Your task to perform on an android device: delete location history Image 0: 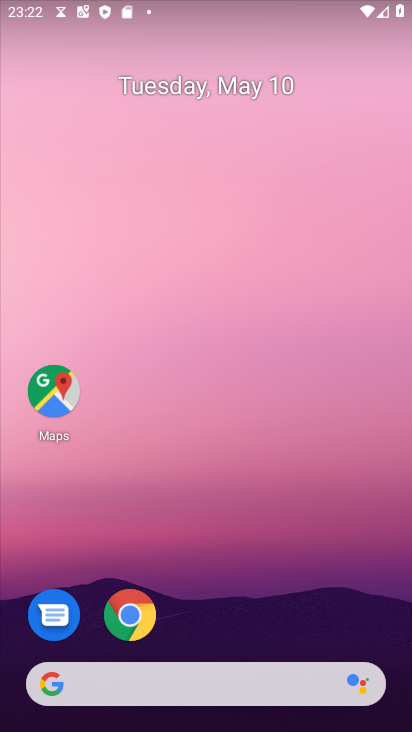
Step 0: click (55, 395)
Your task to perform on an android device: delete location history Image 1: 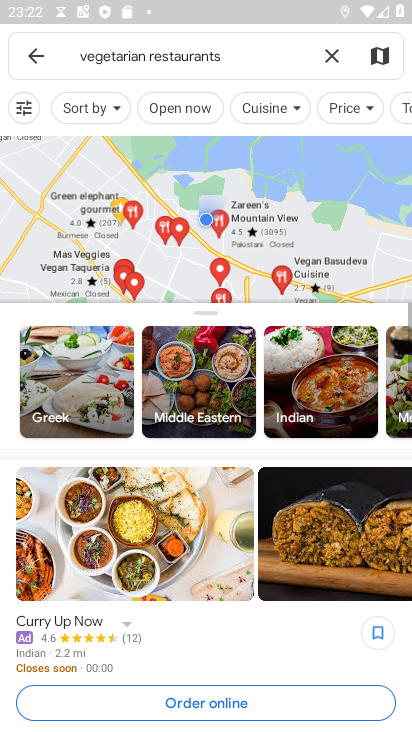
Step 1: click (326, 53)
Your task to perform on an android device: delete location history Image 2: 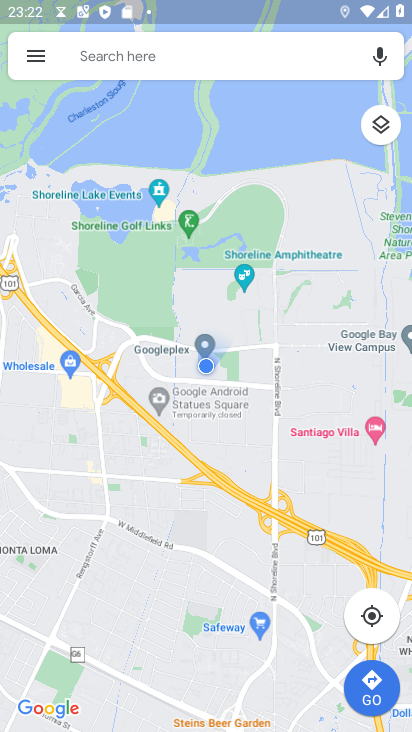
Step 2: click (37, 58)
Your task to perform on an android device: delete location history Image 3: 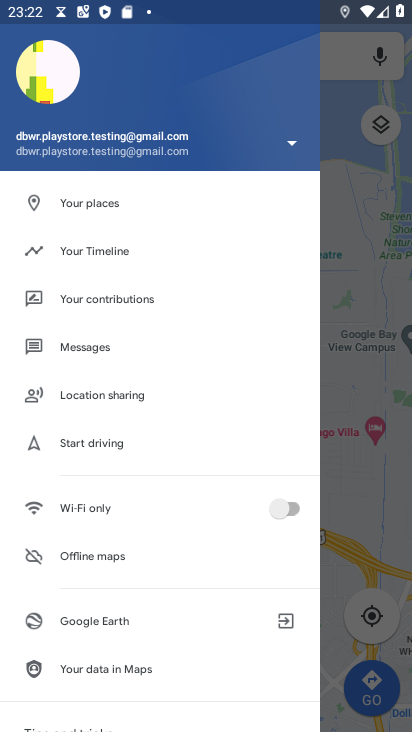
Step 3: drag from (122, 550) to (101, 450)
Your task to perform on an android device: delete location history Image 4: 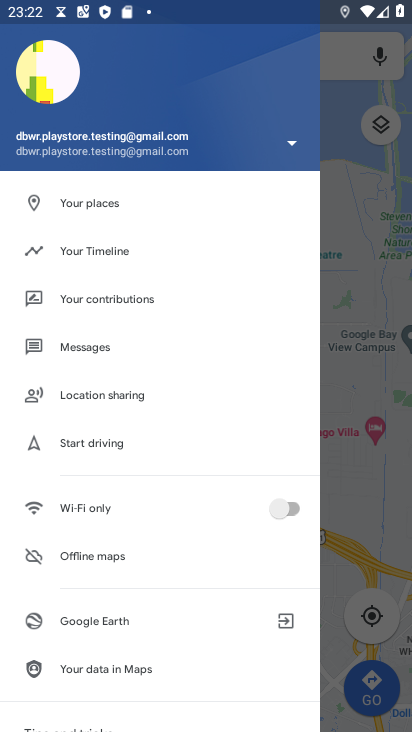
Step 4: drag from (86, 639) to (126, 487)
Your task to perform on an android device: delete location history Image 5: 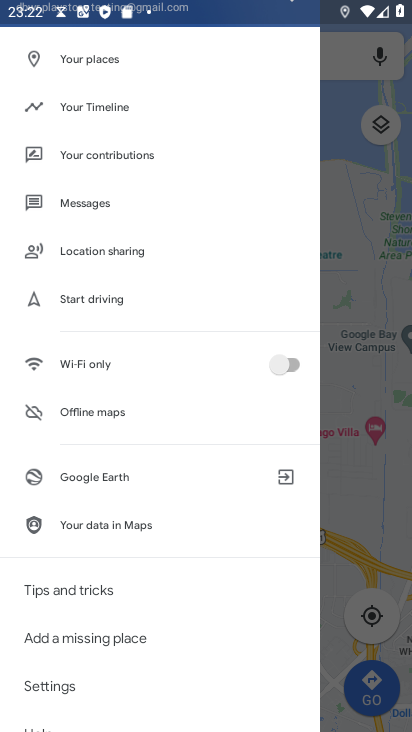
Step 5: drag from (72, 650) to (117, 512)
Your task to perform on an android device: delete location history Image 6: 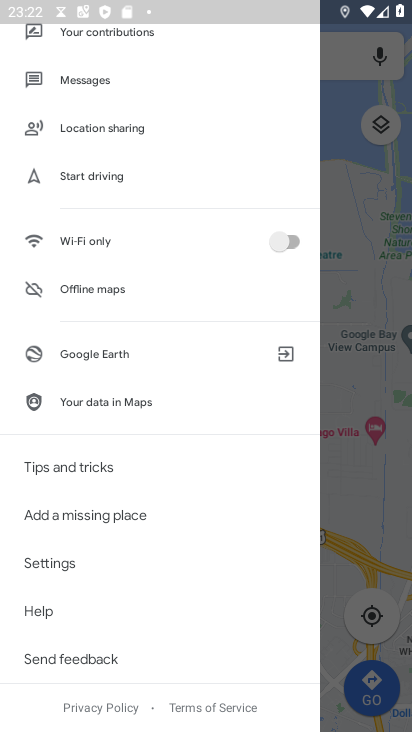
Step 6: click (50, 566)
Your task to perform on an android device: delete location history Image 7: 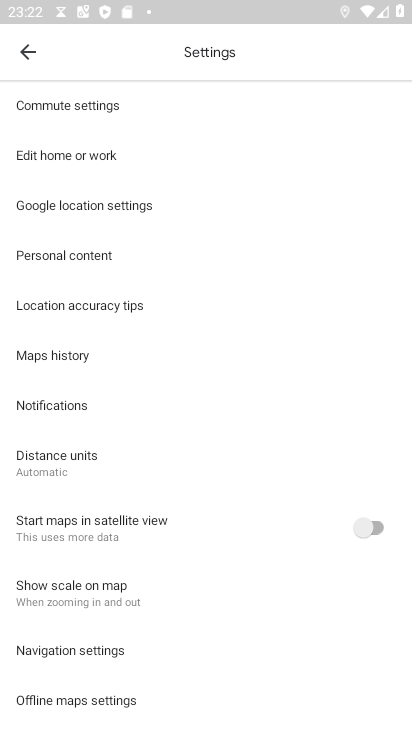
Step 7: click (55, 257)
Your task to perform on an android device: delete location history Image 8: 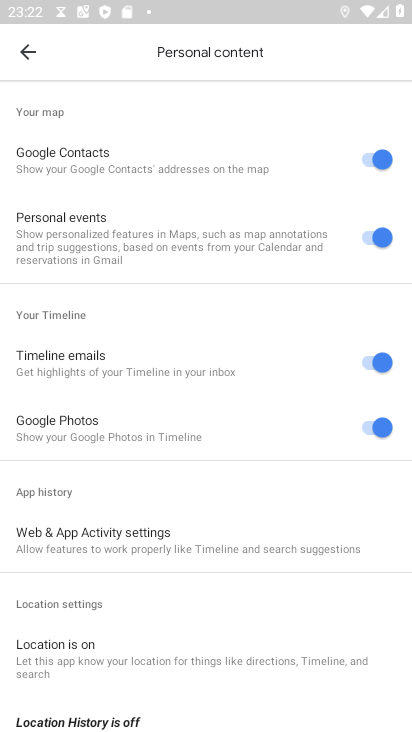
Step 8: drag from (172, 499) to (196, 380)
Your task to perform on an android device: delete location history Image 9: 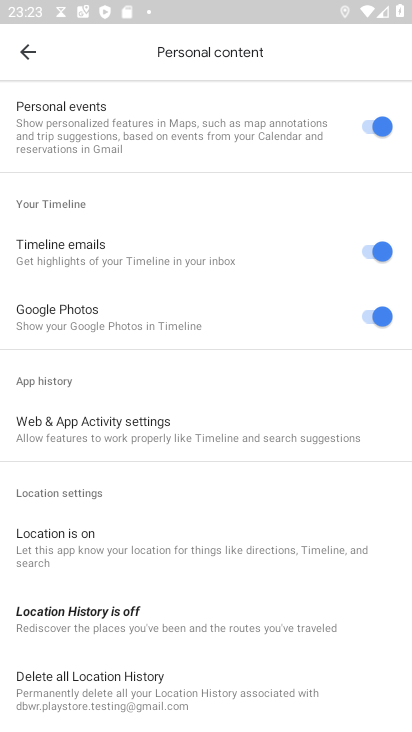
Step 9: drag from (154, 494) to (198, 373)
Your task to perform on an android device: delete location history Image 10: 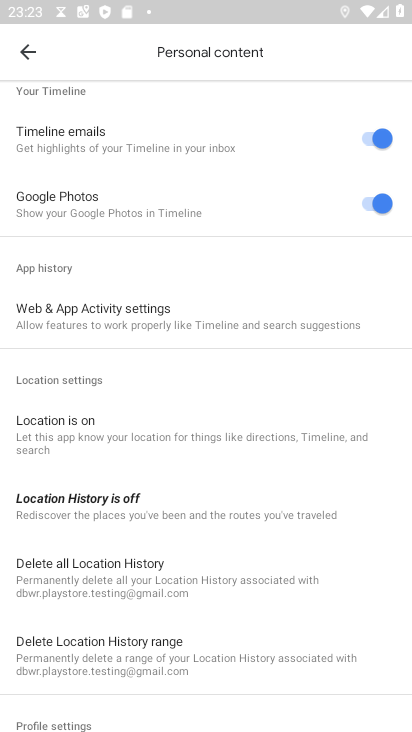
Step 10: click (117, 569)
Your task to perform on an android device: delete location history Image 11: 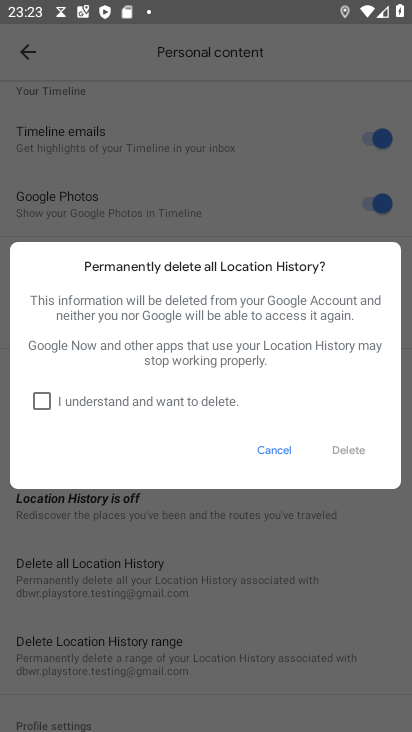
Step 11: click (37, 399)
Your task to perform on an android device: delete location history Image 12: 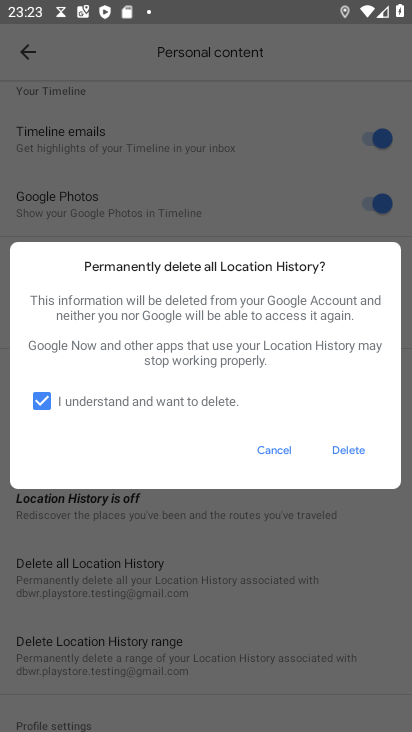
Step 12: click (358, 446)
Your task to perform on an android device: delete location history Image 13: 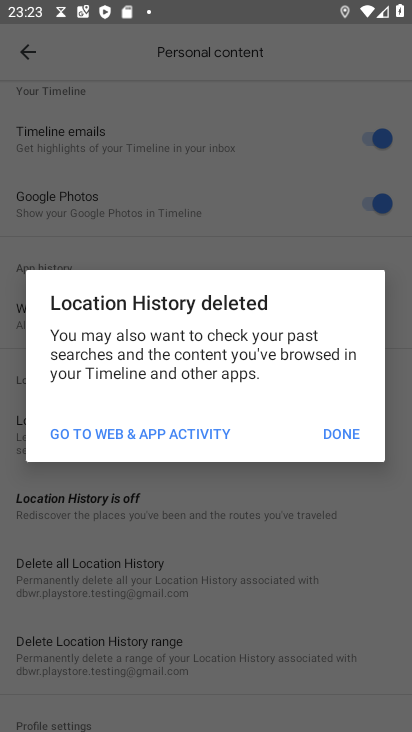
Step 13: click (349, 439)
Your task to perform on an android device: delete location history Image 14: 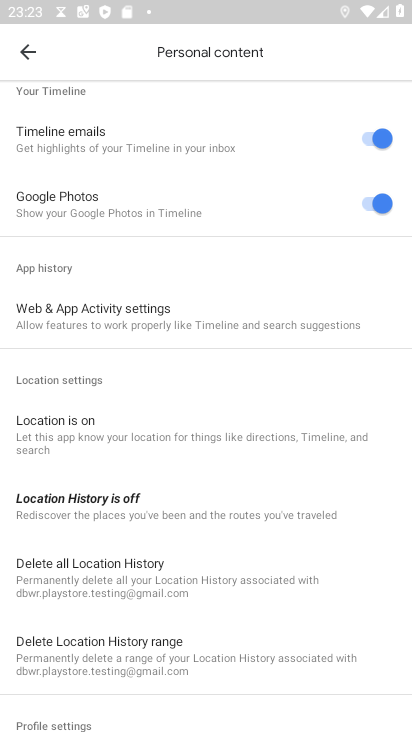
Step 14: task complete